Your task to perform on an android device: What's the weather? Image 0: 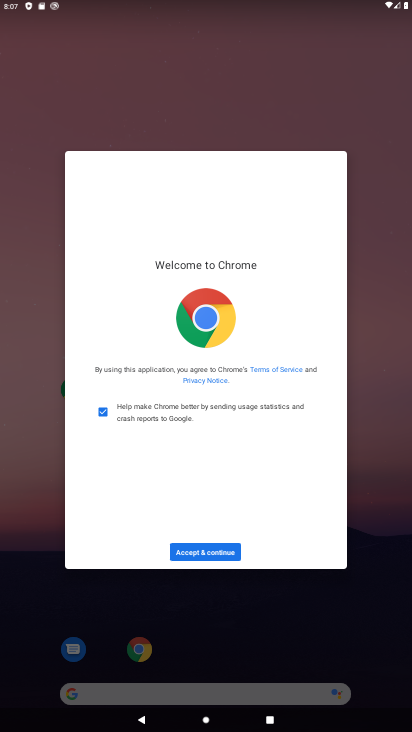
Step 0: click (294, 612)
Your task to perform on an android device: What's the weather? Image 1: 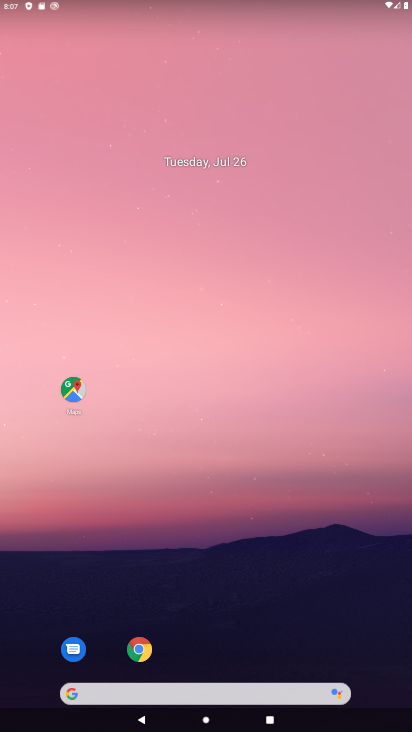
Step 1: click (265, 686)
Your task to perform on an android device: What's the weather? Image 2: 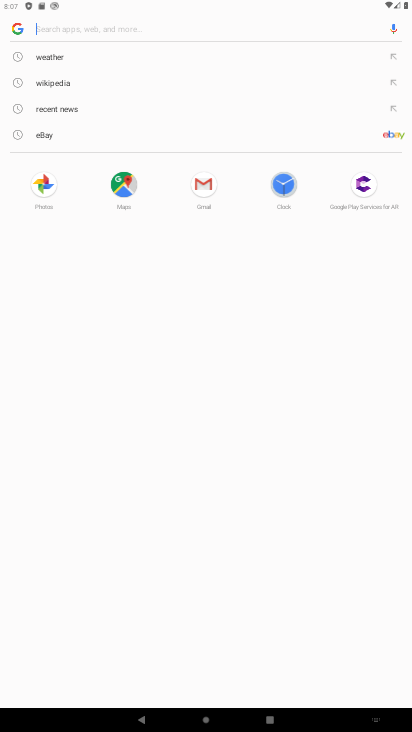
Step 2: click (36, 66)
Your task to perform on an android device: What's the weather? Image 3: 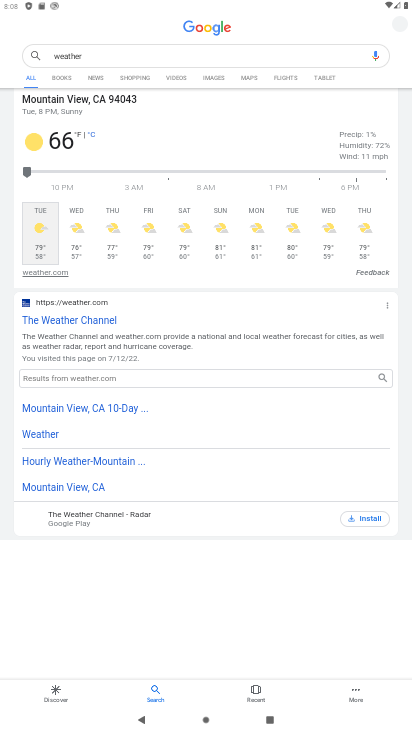
Step 3: task complete